Your task to perform on an android device: add a label to a message in the gmail app Image 0: 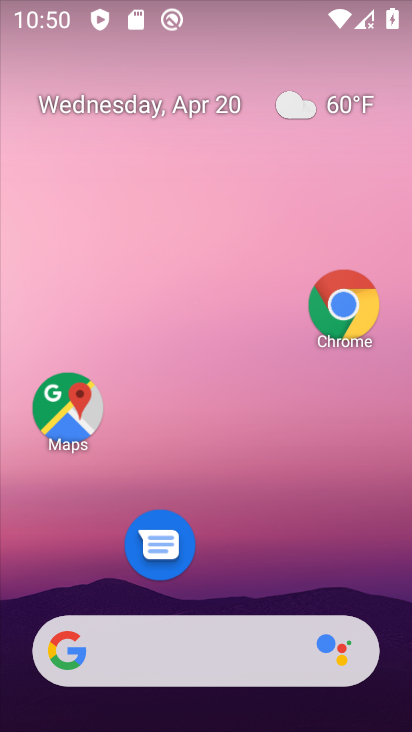
Step 0: drag from (255, 549) to (241, 232)
Your task to perform on an android device: add a label to a message in the gmail app Image 1: 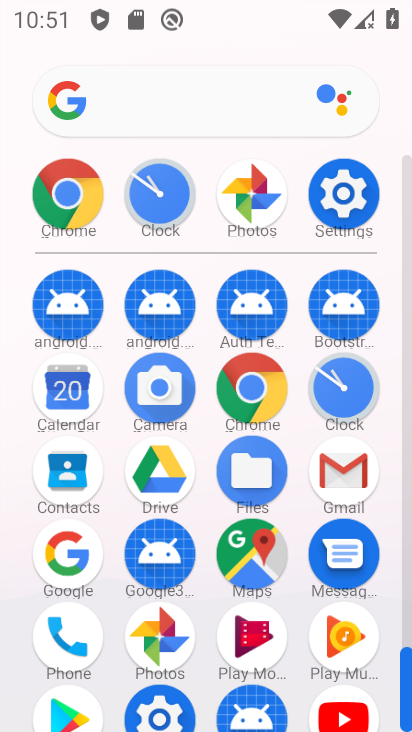
Step 1: click (336, 474)
Your task to perform on an android device: add a label to a message in the gmail app Image 2: 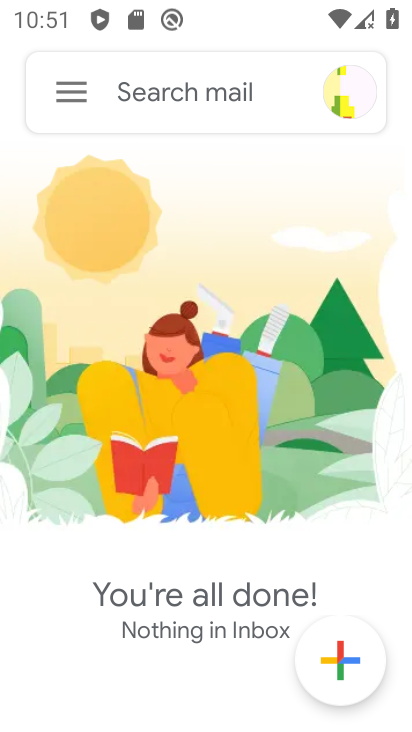
Step 2: click (69, 103)
Your task to perform on an android device: add a label to a message in the gmail app Image 3: 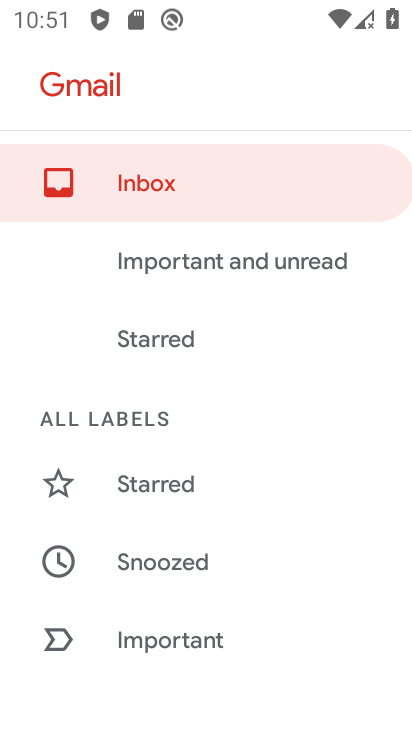
Step 3: drag from (172, 522) to (229, 19)
Your task to perform on an android device: add a label to a message in the gmail app Image 4: 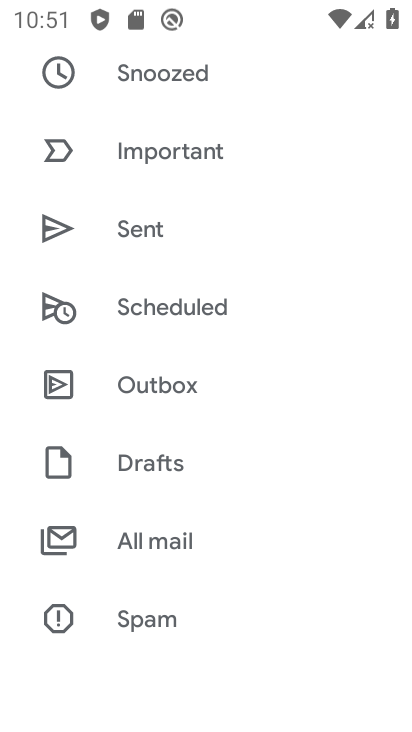
Step 4: click (173, 542)
Your task to perform on an android device: add a label to a message in the gmail app Image 5: 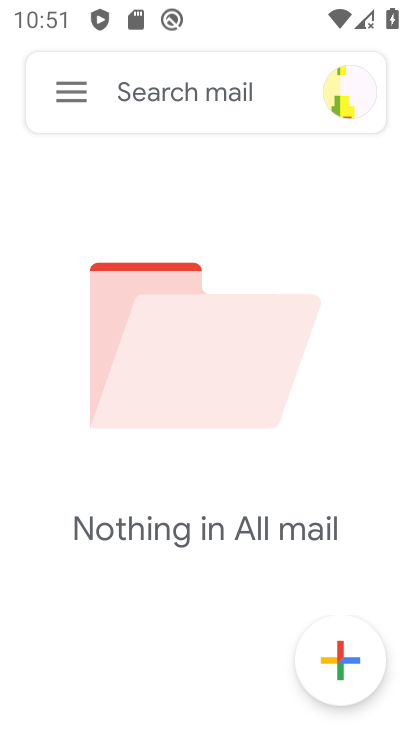
Step 5: task complete